Your task to perform on an android device: check data usage Image 0: 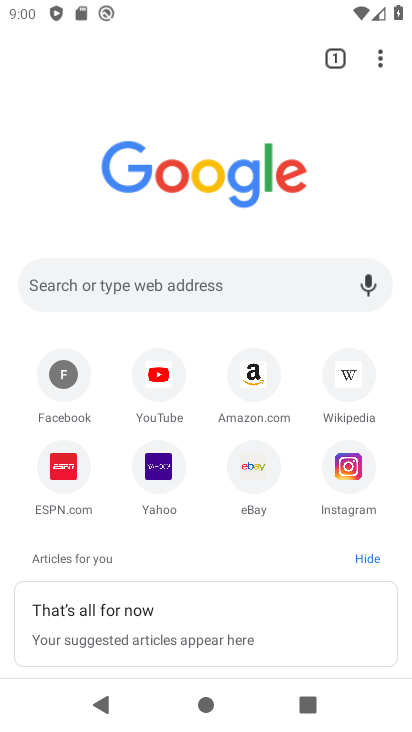
Step 0: press home button
Your task to perform on an android device: check data usage Image 1: 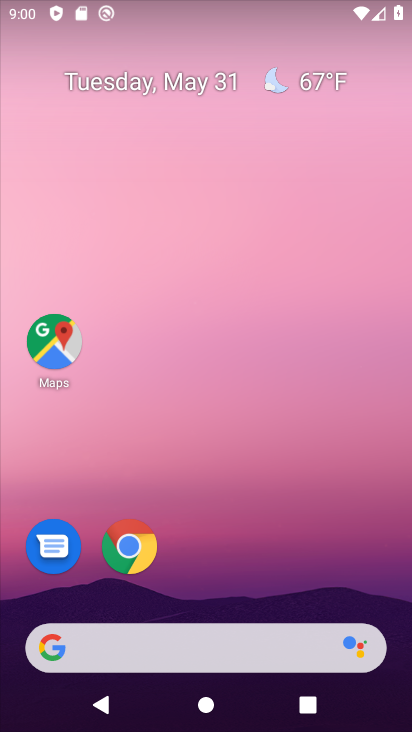
Step 1: drag from (258, 539) to (307, 82)
Your task to perform on an android device: check data usage Image 2: 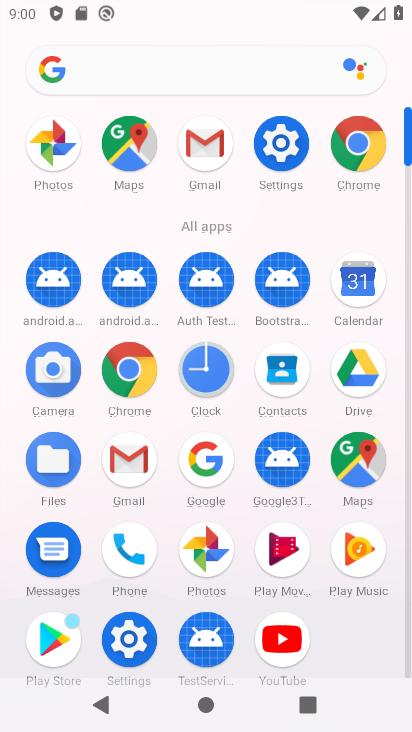
Step 2: click (278, 148)
Your task to perform on an android device: check data usage Image 3: 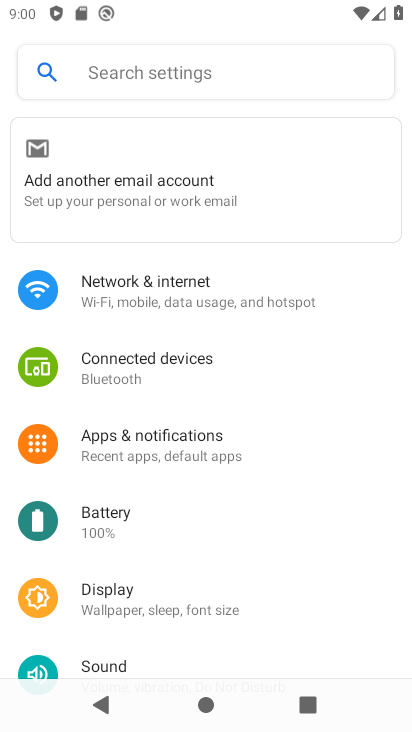
Step 3: click (192, 293)
Your task to perform on an android device: check data usage Image 4: 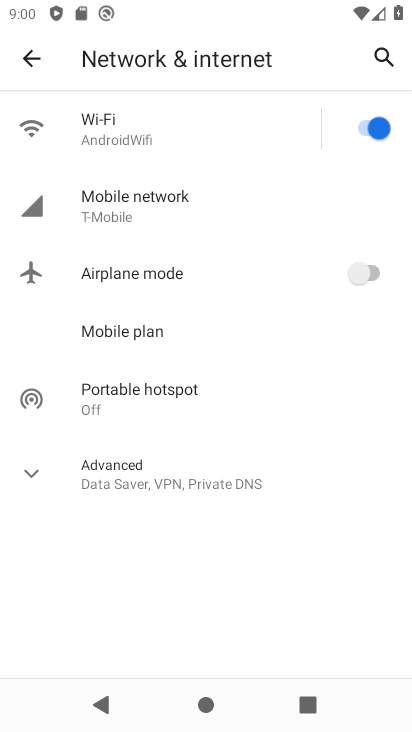
Step 4: click (169, 203)
Your task to perform on an android device: check data usage Image 5: 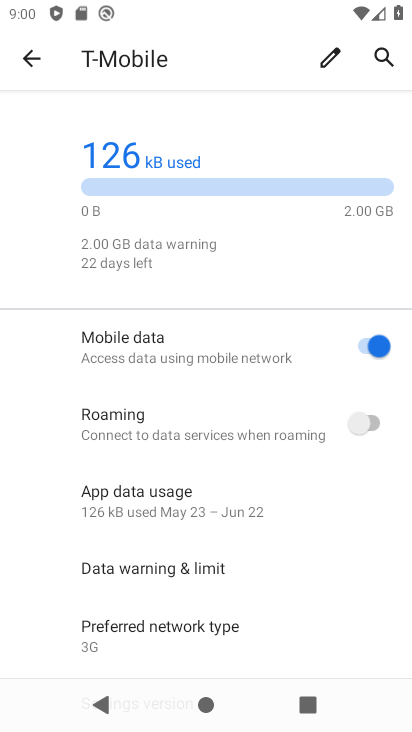
Step 5: click (167, 494)
Your task to perform on an android device: check data usage Image 6: 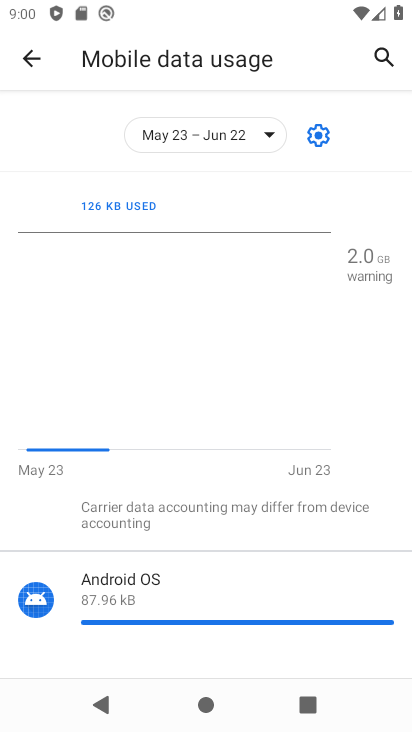
Step 6: task complete